Your task to perform on an android device: turn off improve location accuracy Image 0: 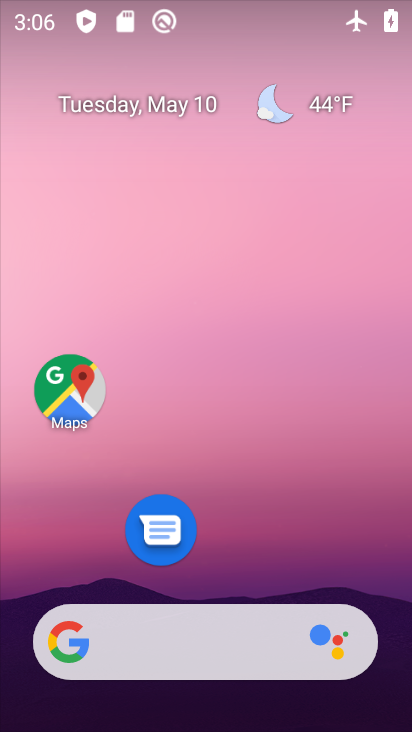
Step 0: drag from (243, 552) to (251, 142)
Your task to perform on an android device: turn off improve location accuracy Image 1: 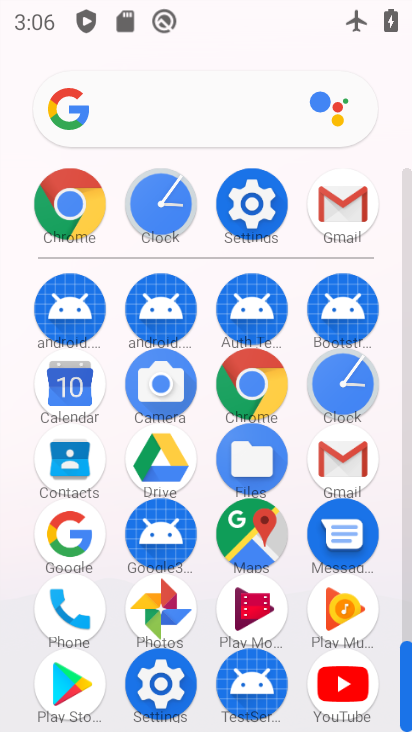
Step 1: click (245, 205)
Your task to perform on an android device: turn off improve location accuracy Image 2: 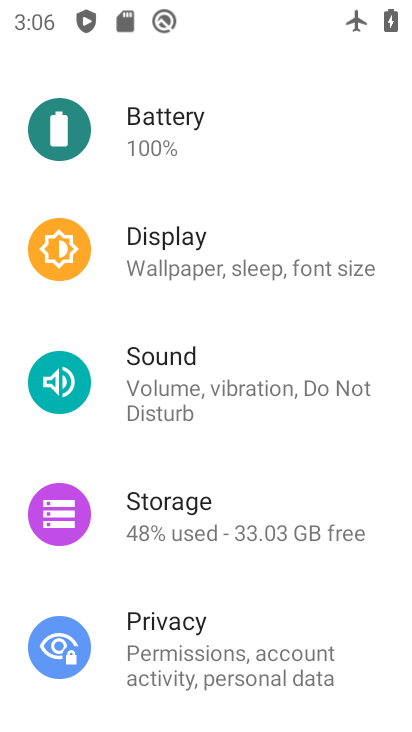
Step 2: drag from (208, 277) to (248, 11)
Your task to perform on an android device: turn off improve location accuracy Image 3: 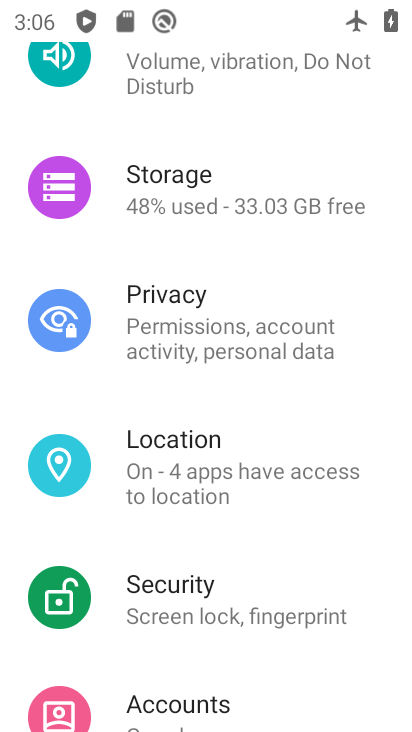
Step 3: click (144, 477)
Your task to perform on an android device: turn off improve location accuracy Image 4: 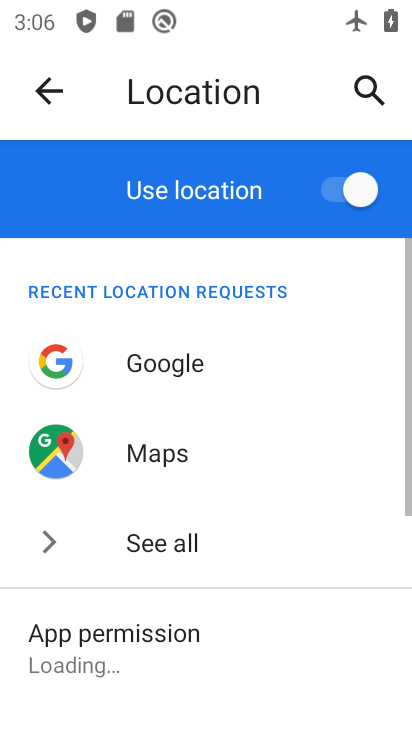
Step 4: drag from (211, 633) to (199, 148)
Your task to perform on an android device: turn off improve location accuracy Image 5: 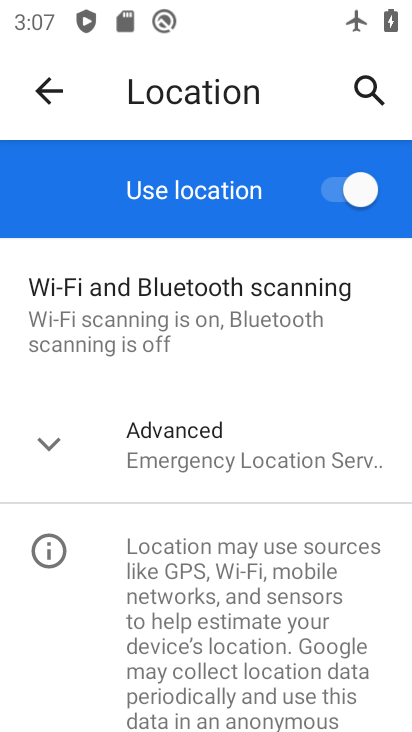
Step 5: click (193, 442)
Your task to perform on an android device: turn off improve location accuracy Image 6: 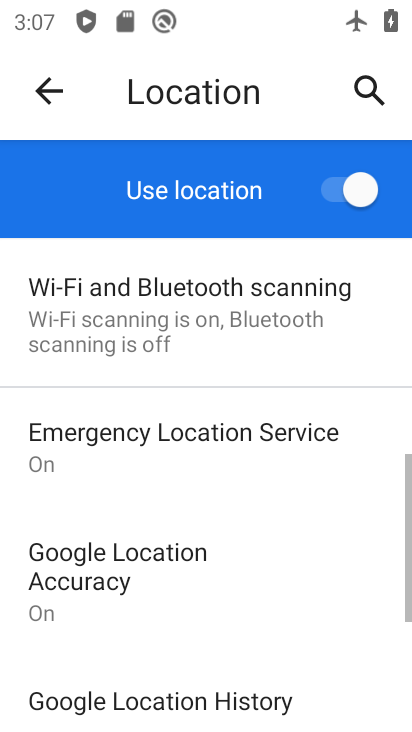
Step 6: drag from (233, 615) to (227, 473)
Your task to perform on an android device: turn off improve location accuracy Image 7: 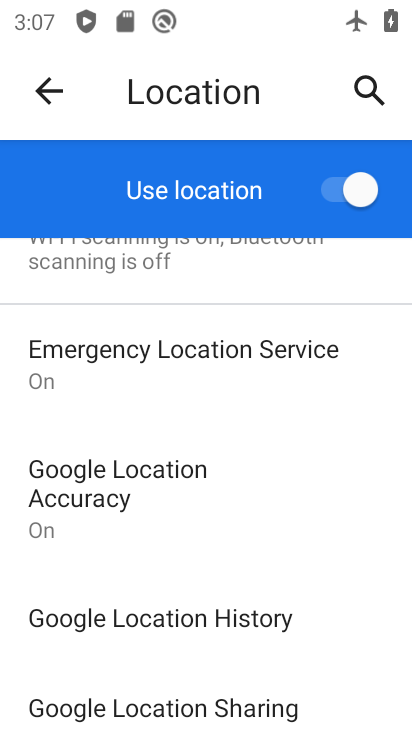
Step 7: click (134, 482)
Your task to perform on an android device: turn off improve location accuracy Image 8: 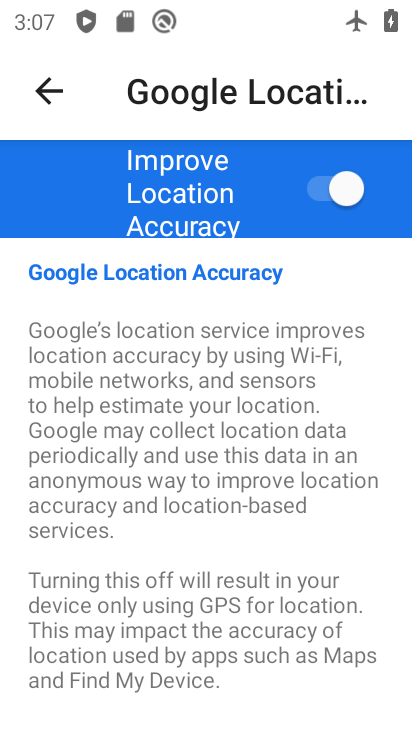
Step 8: click (339, 189)
Your task to perform on an android device: turn off improve location accuracy Image 9: 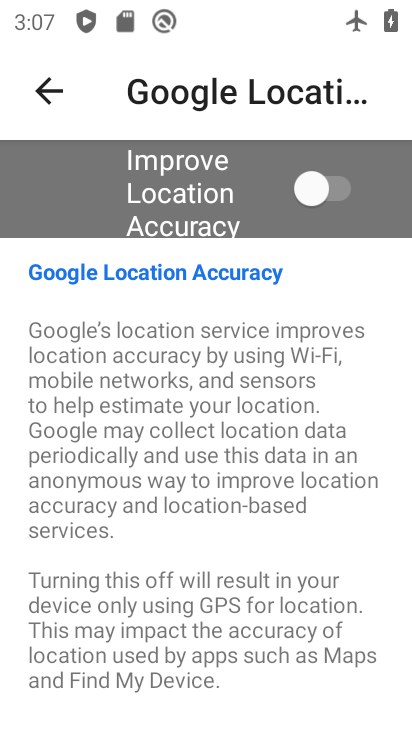
Step 9: task complete